Your task to perform on an android device: make emails show in primary in the gmail app Image 0: 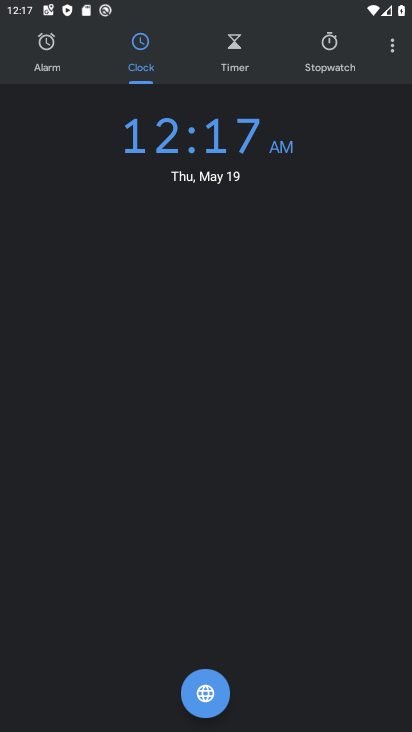
Step 0: press home button
Your task to perform on an android device: make emails show in primary in the gmail app Image 1: 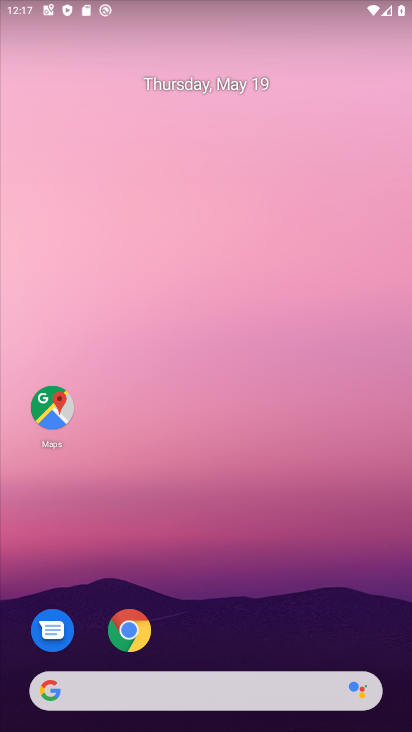
Step 1: drag from (215, 637) to (250, 105)
Your task to perform on an android device: make emails show in primary in the gmail app Image 2: 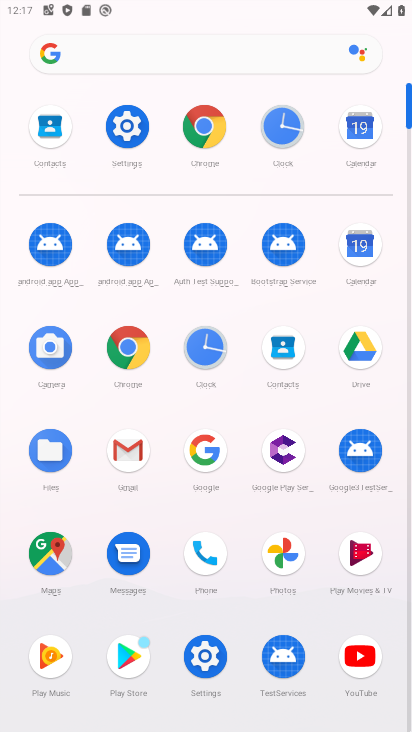
Step 2: click (131, 453)
Your task to perform on an android device: make emails show in primary in the gmail app Image 3: 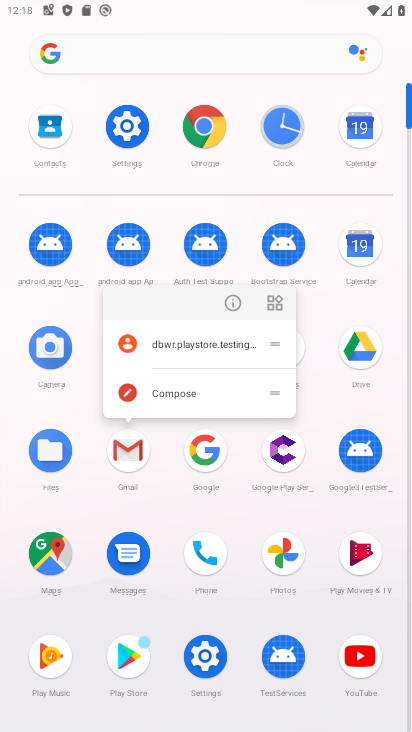
Step 3: click (141, 350)
Your task to perform on an android device: make emails show in primary in the gmail app Image 4: 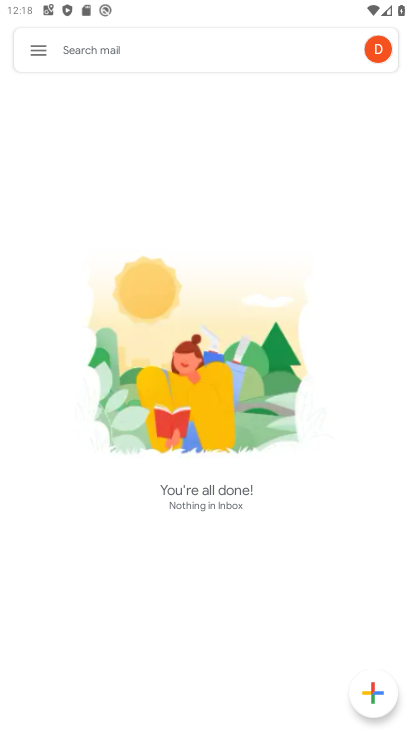
Step 4: click (30, 47)
Your task to perform on an android device: make emails show in primary in the gmail app Image 5: 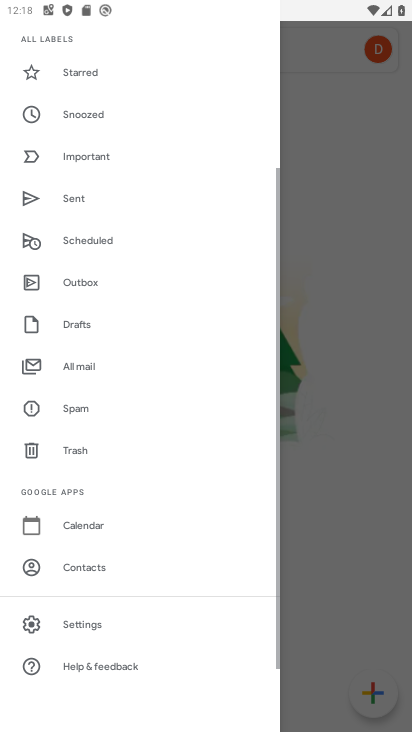
Step 5: drag from (109, 77) to (116, 626)
Your task to perform on an android device: make emails show in primary in the gmail app Image 6: 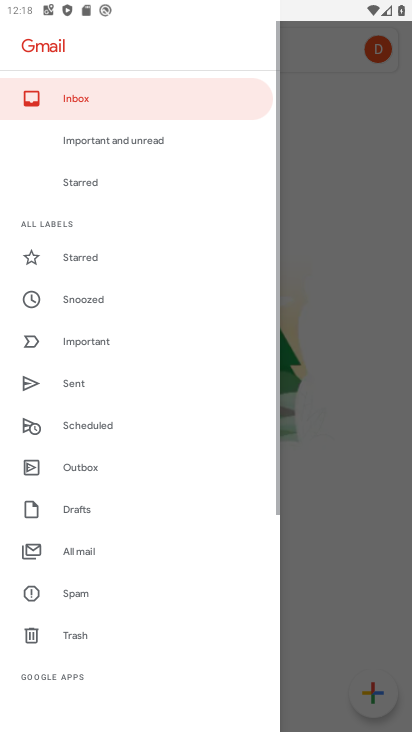
Step 6: click (122, 96)
Your task to perform on an android device: make emails show in primary in the gmail app Image 7: 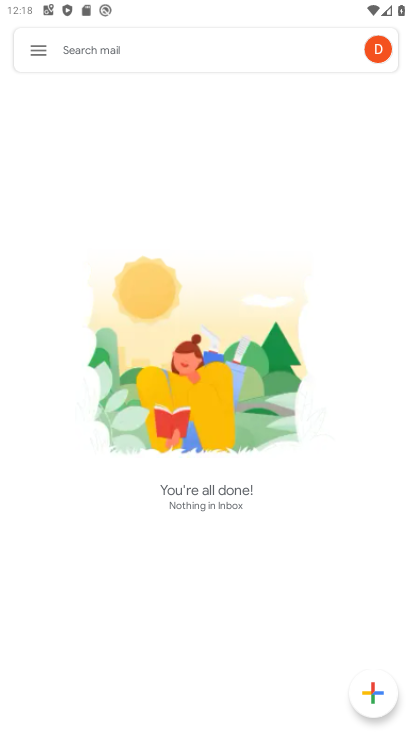
Step 7: task complete